Your task to perform on an android device: Open calendar and show me the third week of next month Image 0: 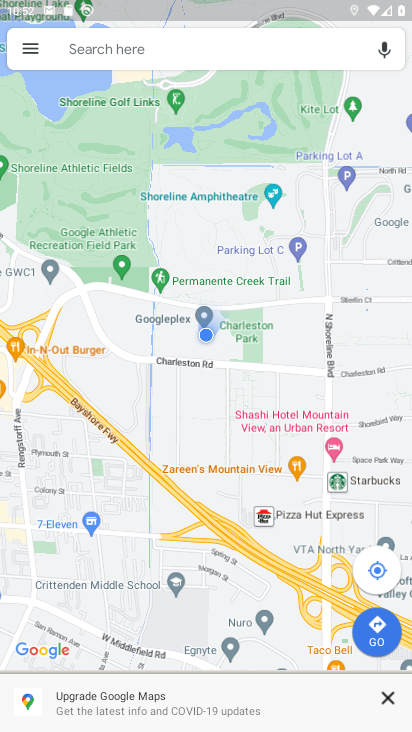
Step 0: press home button
Your task to perform on an android device: Open calendar and show me the third week of next month Image 1: 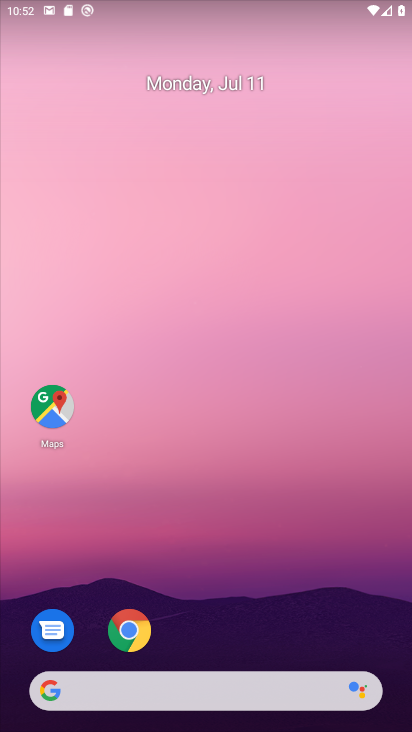
Step 1: drag from (182, 513) to (234, 2)
Your task to perform on an android device: Open calendar and show me the third week of next month Image 2: 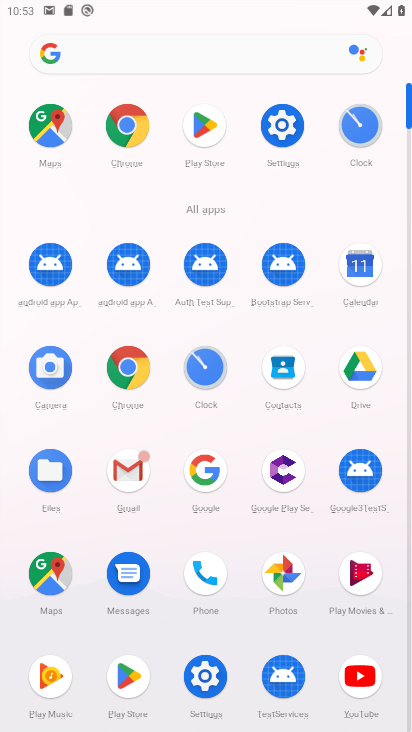
Step 2: click (364, 281)
Your task to perform on an android device: Open calendar and show me the third week of next month Image 3: 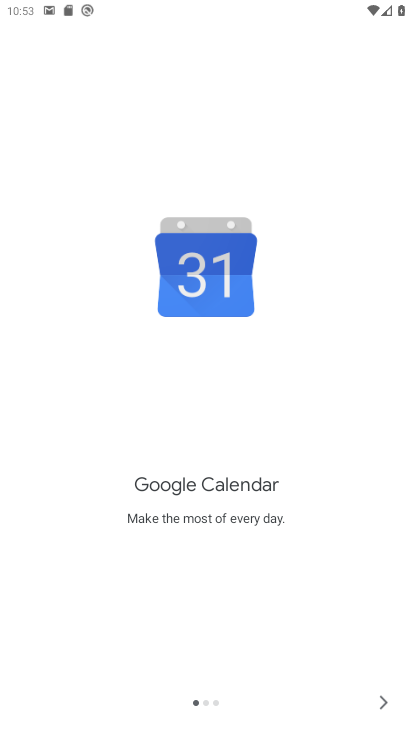
Step 3: click (380, 712)
Your task to perform on an android device: Open calendar and show me the third week of next month Image 4: 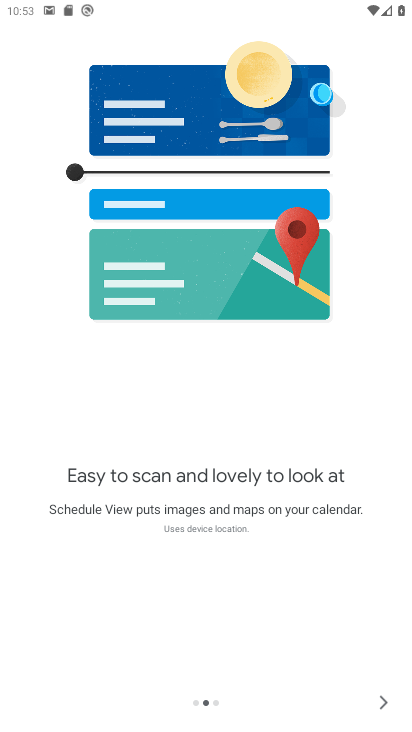
Step 4: click (380, 703)
Your task to perform on an android device: Open calendar and show me the third week of next month Image 5: 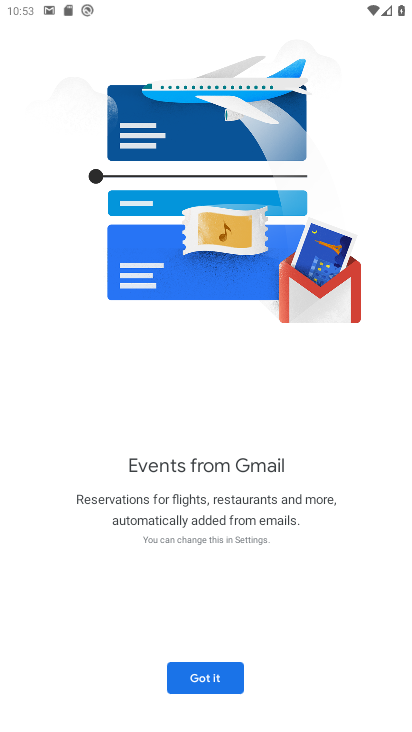
Step 5: click (227, 685)
Your task to perform on an android device: Open calendar and show me the third week of next month Image 6: 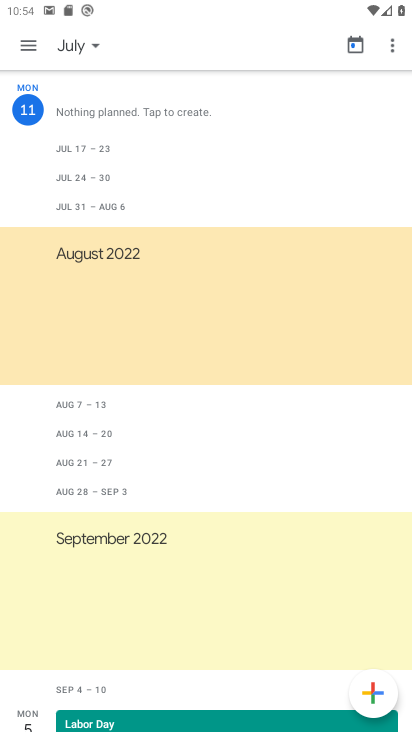
Step 6: drag from (201, 327) to (234, 487)
Your task to perform on an android device: Open calendar and show me the third week of next month Image 7: 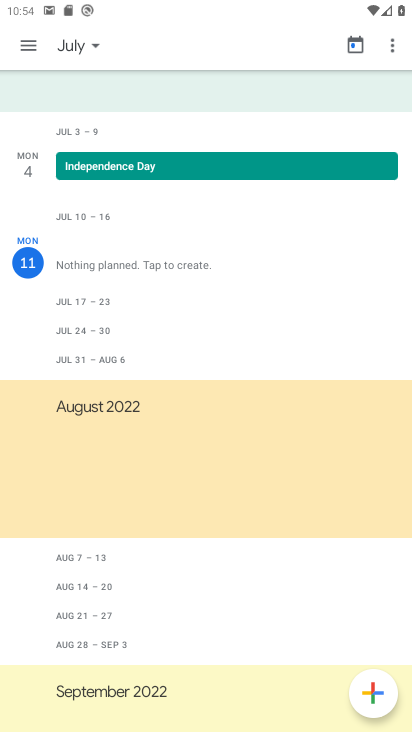
Step 7: click (85, 39)
Your task to perform on an android device: Open calendar and show me the third week of next month Image 8: 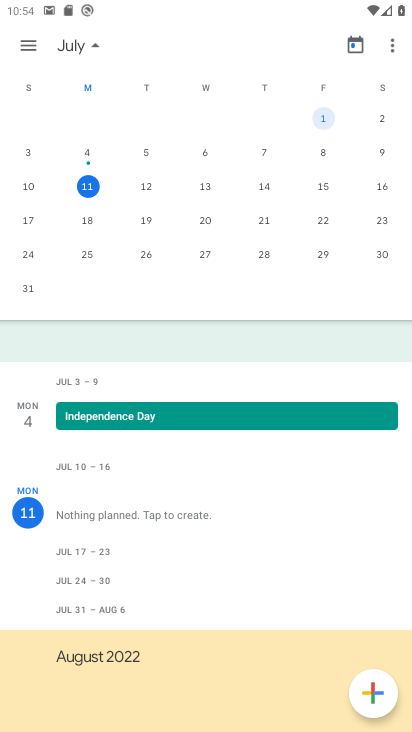
Step 8: task complete